Your task to perform on an android device: turn off location history Image 0: 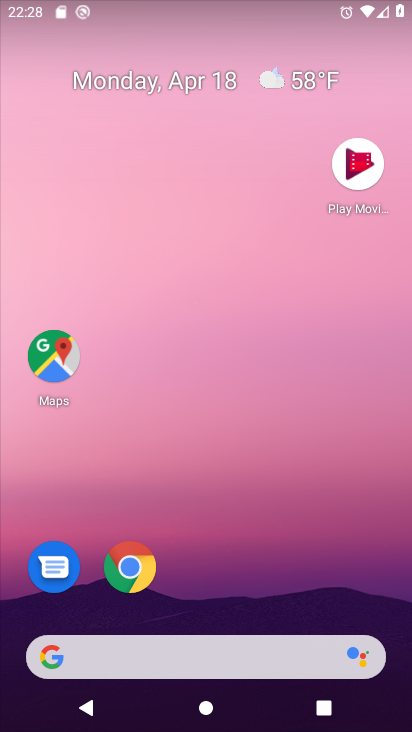
Step 0: drag from (210, 578) to (249, 242)
Your task to perform on an android device: turn off location history Image 1: 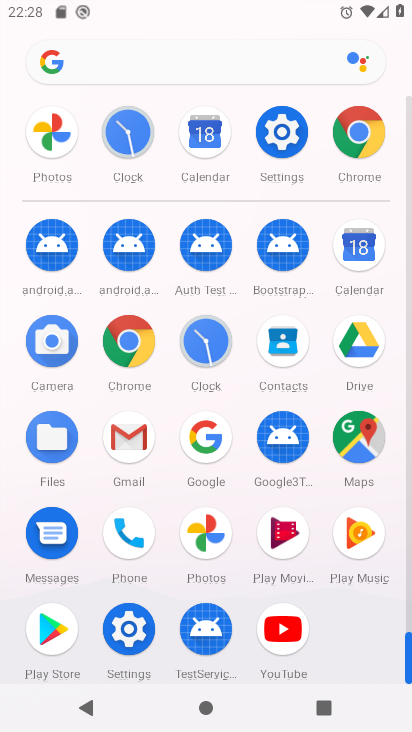
Step 1: click (206, 344)
Your task to perform on an android device: turn off location history Image 2: 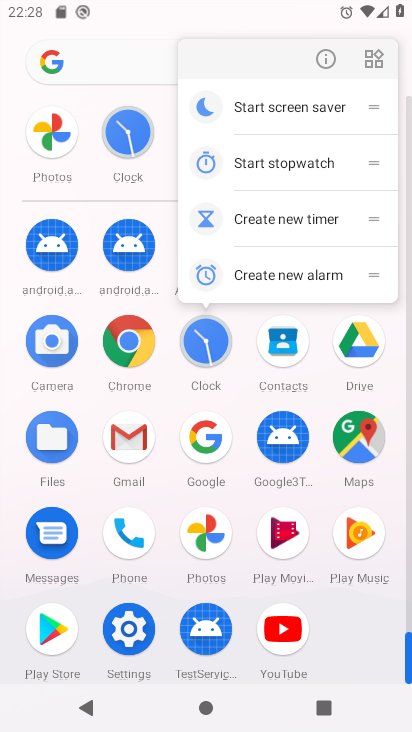
Step 2: click (329, 63)
Your task to perform on an android device: turn off location history Image 3: 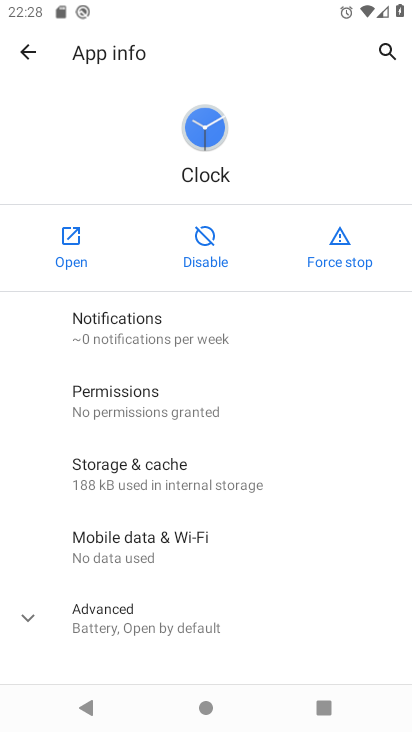
Step 3: click (63, 233)
Your task to perform on an android device: turn off location history Image 4: 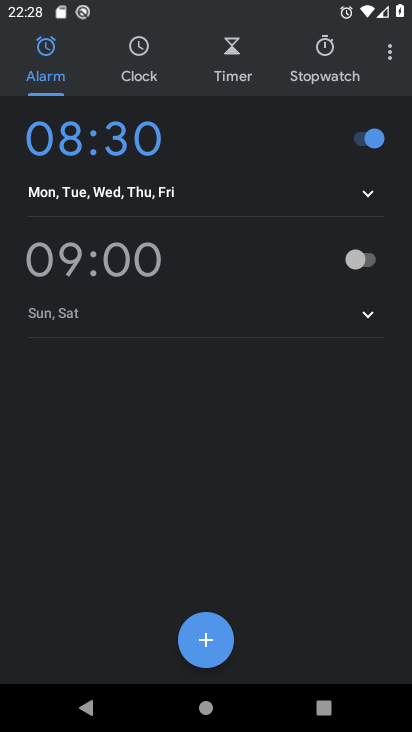
Step 4: drag from (209, 366) to (248, 145)
Your task to perform on an android device: turn off location history Image 5: 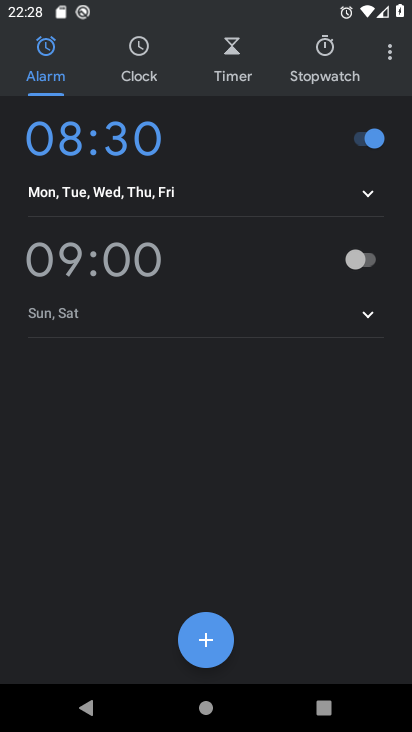
Step 5: click (135, 71)
Your task to perform on an android device: turn off location history Image 6: 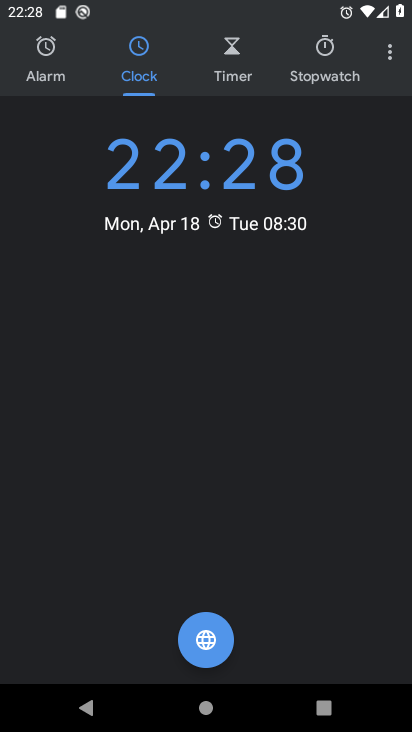
Step 6: click (51, 73)
Your task to perform on an android device: turn off location history Image 7: 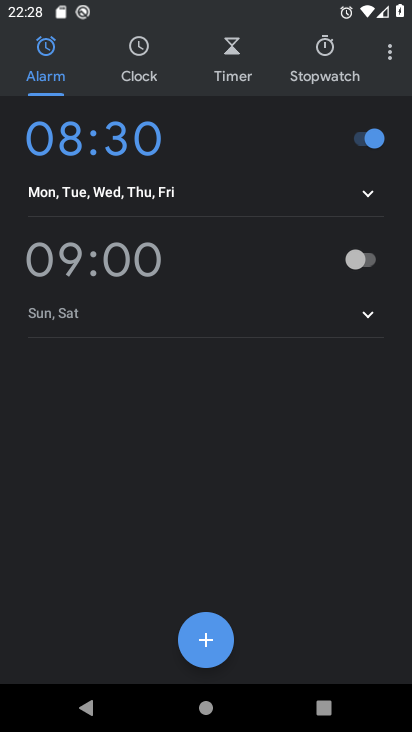
Step 7: click (43, 75)
Your task to perform on an android device: turn off location history Image 8: 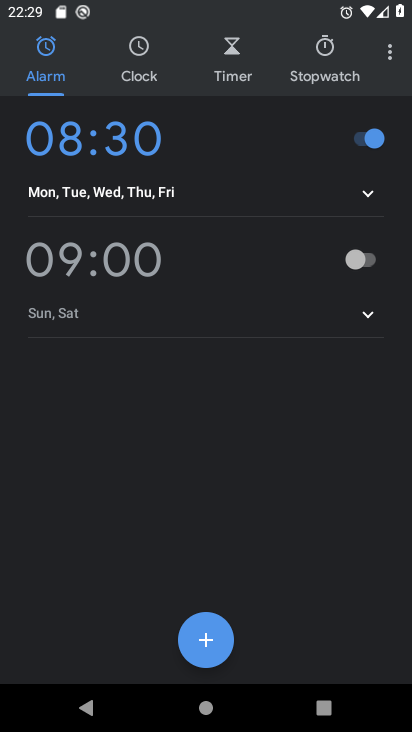
Step 8: click (140, 66)
Your task to perform on an android device: turn off location history Image 9: 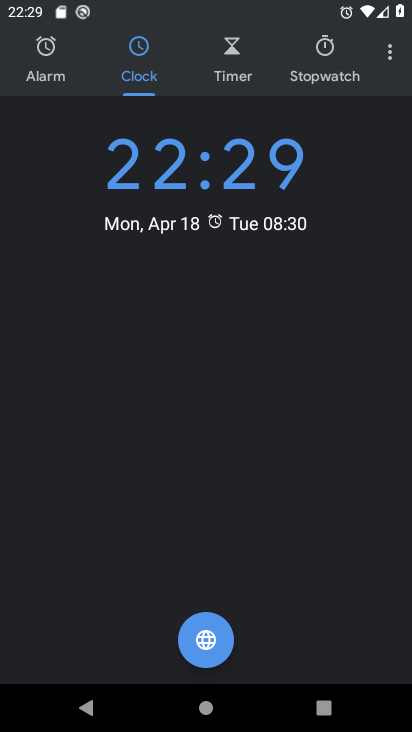
Step 9: click (245, 49)
Your task to perform on an android device: turn off location history Image 10: 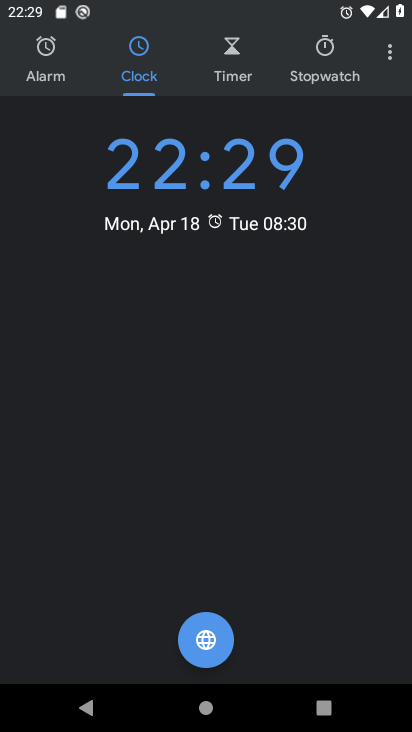
Step 10: click (337, 51)
Your task to perform on an android device: turn off location history Image 11: 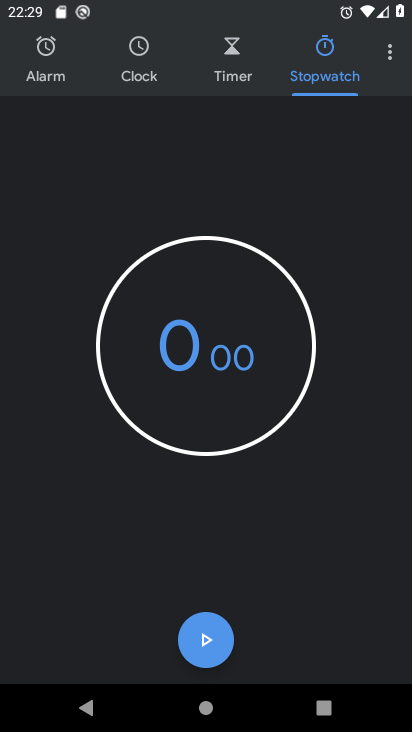
Step 11: drag from (317, 453) to (378, 126)
Your task to perform on an android device: turn off location history Image 12: 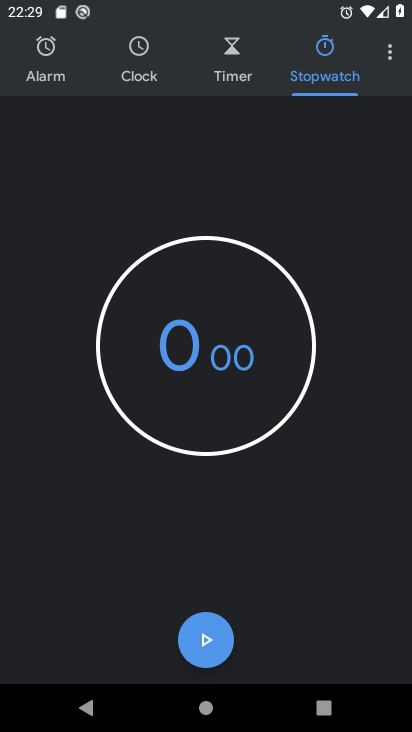
Step 12: press home button
Your task to perform on an android device: turn off location history Image 13: 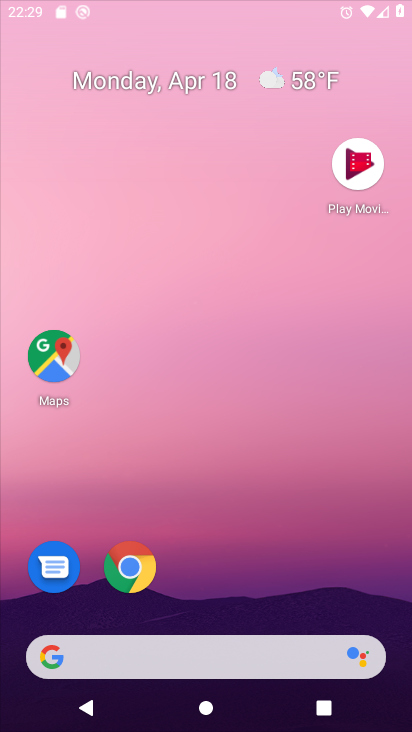
Step 13: drag from (208, 516) to (252, 5)
Your task to perform on an android device: turn off location history Image 14: 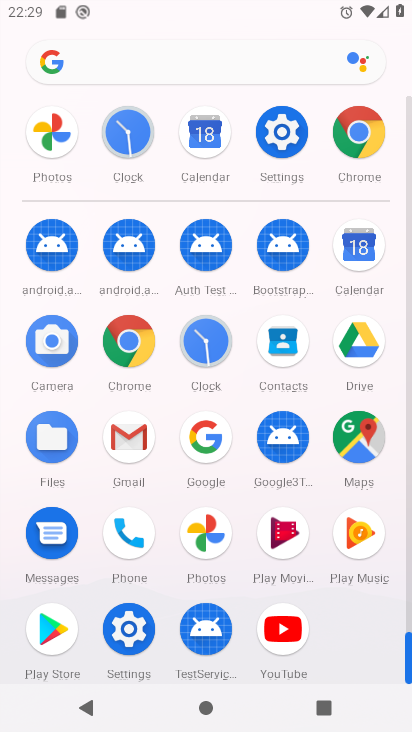
Step 14: click (288, 127)
Your task to perform on an android device: turn off location history Image 15: 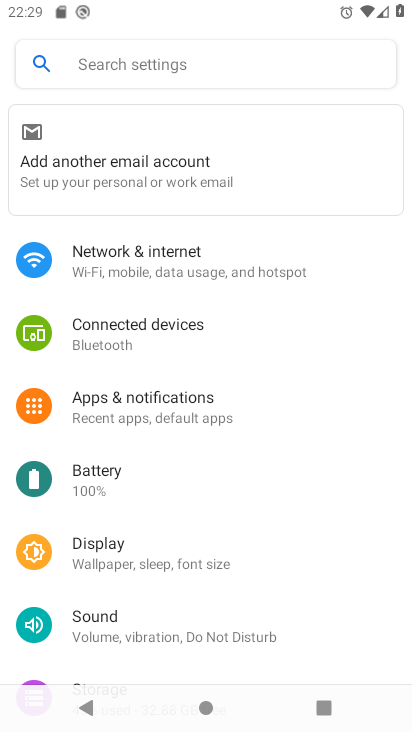
Step 15: drag from (145, 570) to (262, 64)
Your task to perform on an android device: turn off location history Image 16: 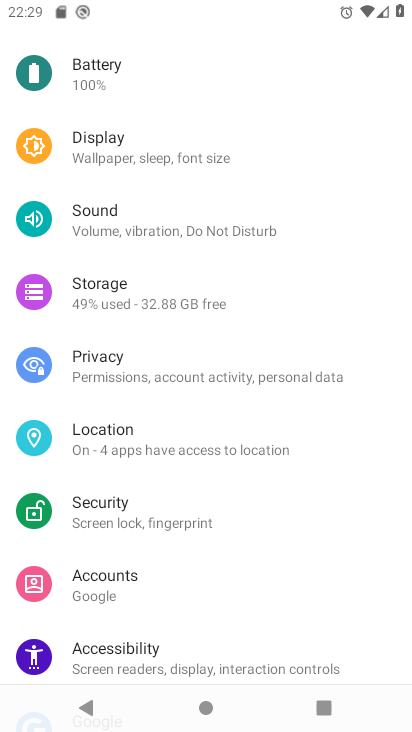
Step 16: click (114, 442)
Your task to perform on an android device: turn off location history Image 17: 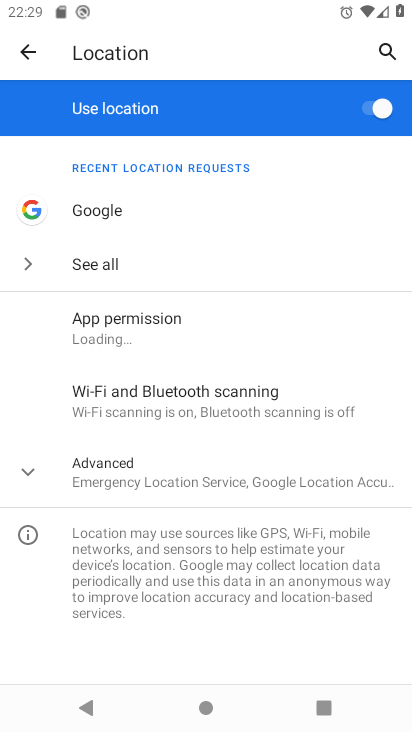
Step 17: click (119, 471)
Your task to perform on an android device: turn off location history Image 18: 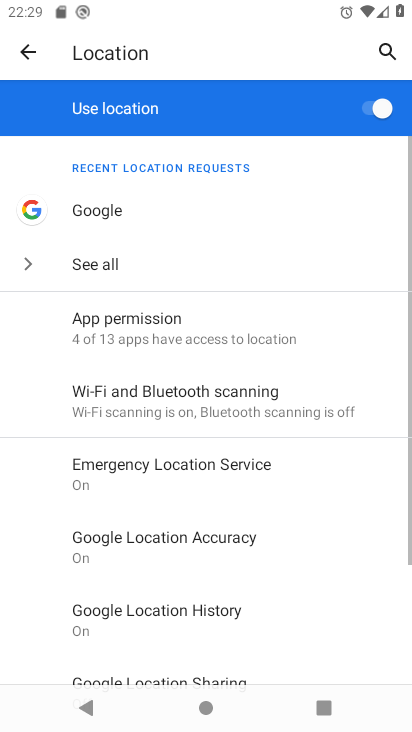
Step 18: click (193, 628)
Your task to perform on an android device: turn off location history Image 19: 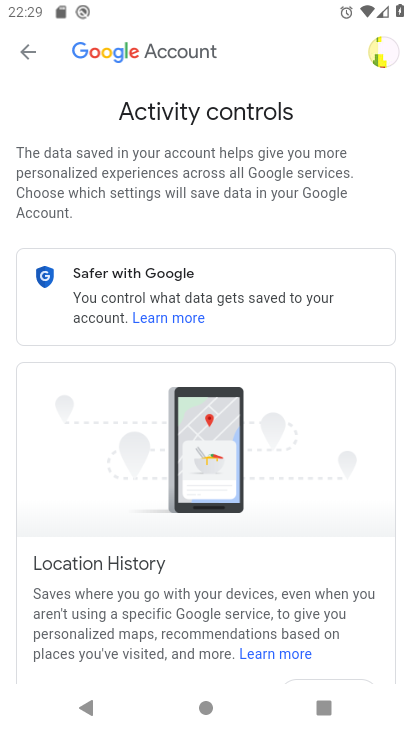
Step 19: drag from (200, 566) to (301, 100)
Your task to perform on an android device: turn off location history Image 20: 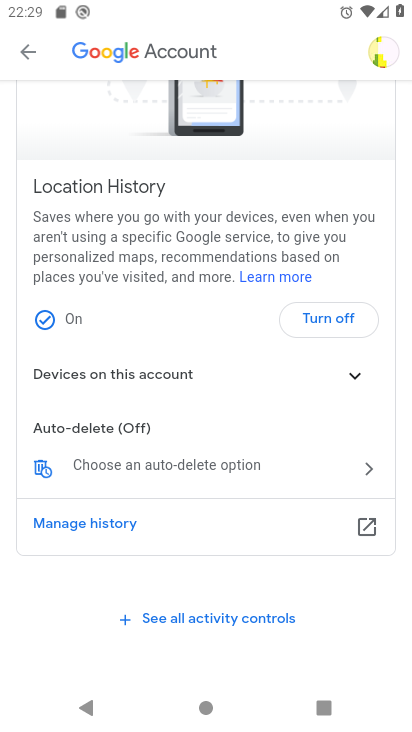
Step 20: drag from (169, 579) to (239, 166)
Your task to perform on an android device: turn off location history Image 21: 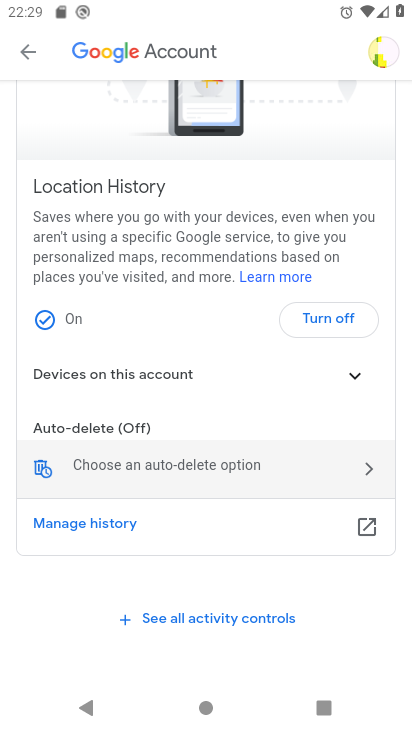
Step 21: click (332, 315)
Your task to perform on an android device: turn off location history Image 22: 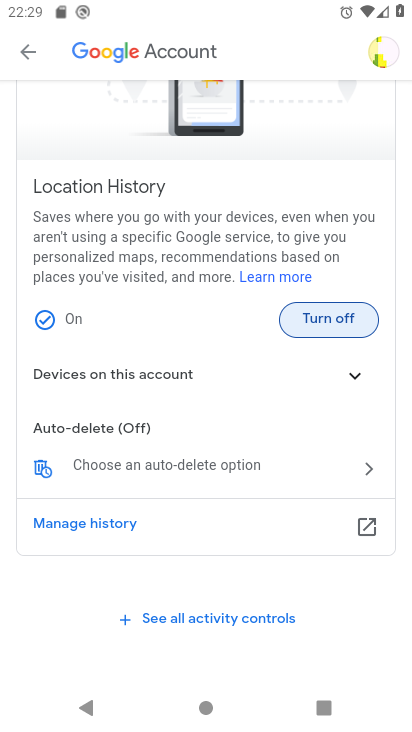
Step 22: click (324, 317)
Your task to perform on an android device: turn off location history Image 23: 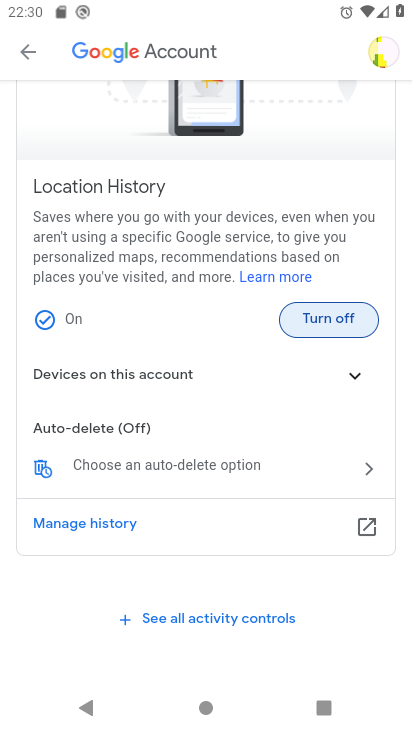
Step 23: click (330, 332)
Your task to perform on an android device: turn off location history Image 24: 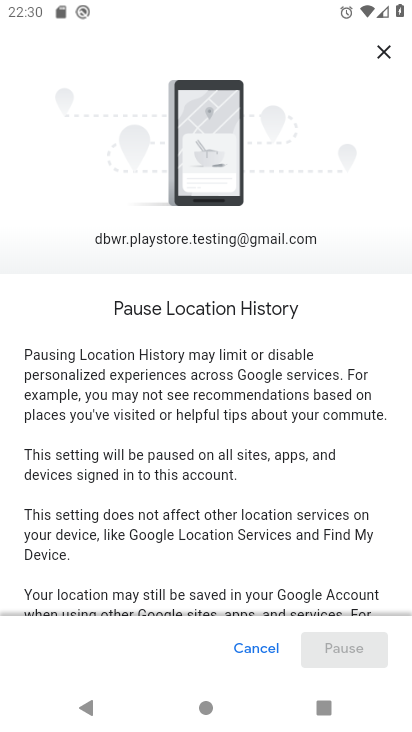
Step 24: drag from (241, 519) to (343, 42)
Your task to perform on an android device: turn off location history Image 25: 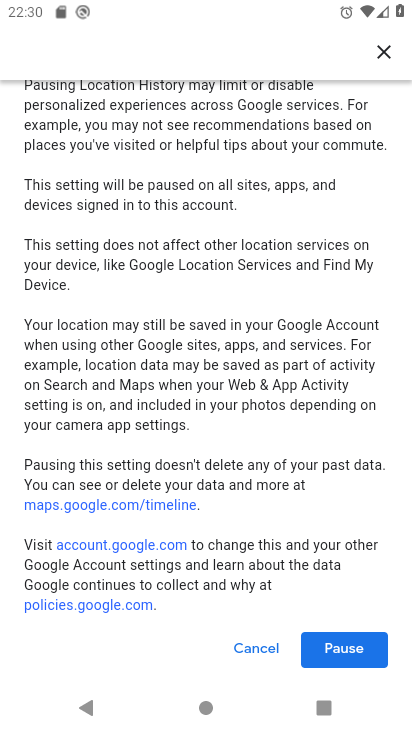
Step 25: drag from (230, 554) to (335, 274)
Your task to perform on an android device: turn off location history Image 26: 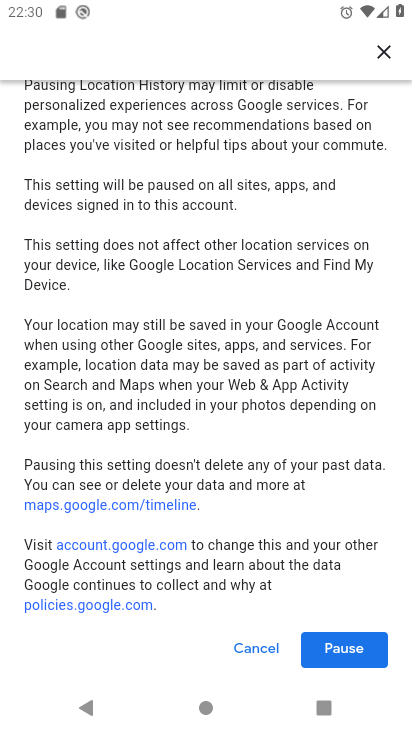
Step 26: click (331, 643)
Your task to perform on an android device: turn off location history Image 27: 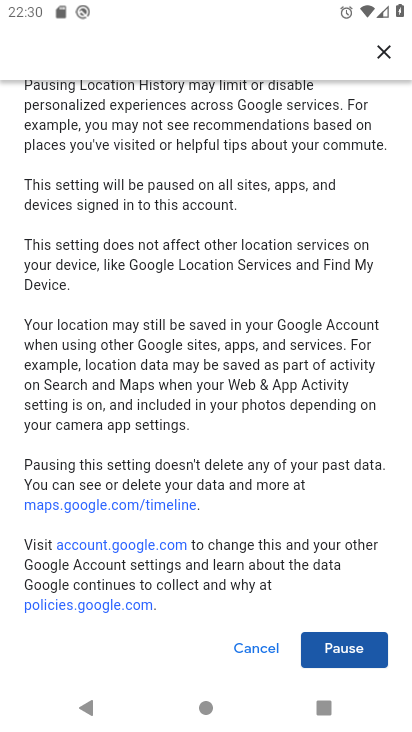
Step 27: task complete